Your task to perform on an android device: Open display settings Image 0: 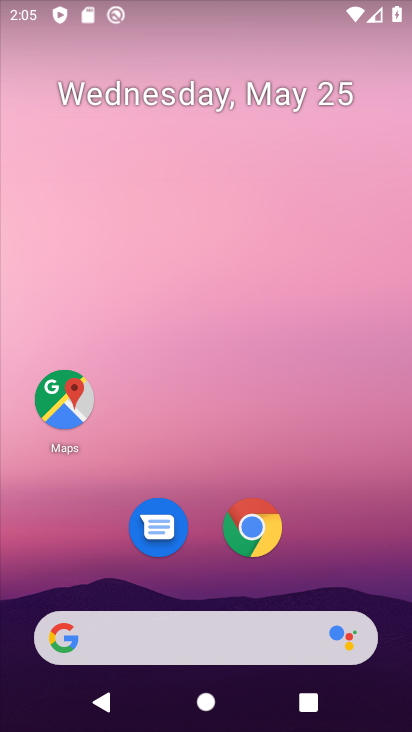
Step 0: drag from (204, 566) to (275, 0)
Your task to perform on an android device: Open display settings Image 1: 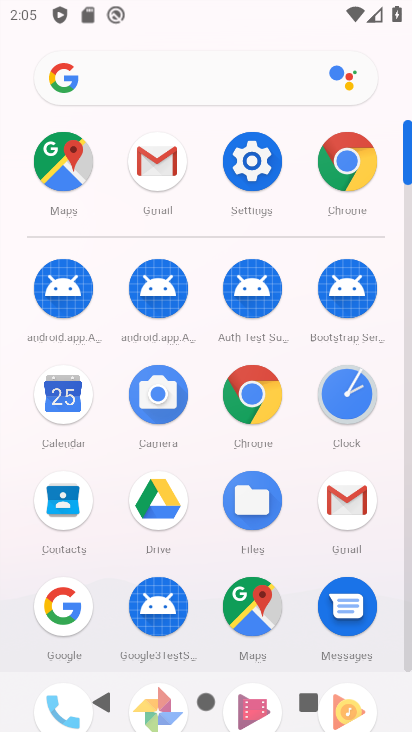
Step 1: click (260, 145)
Your task to perform on an android device: Open display settings Image 2: 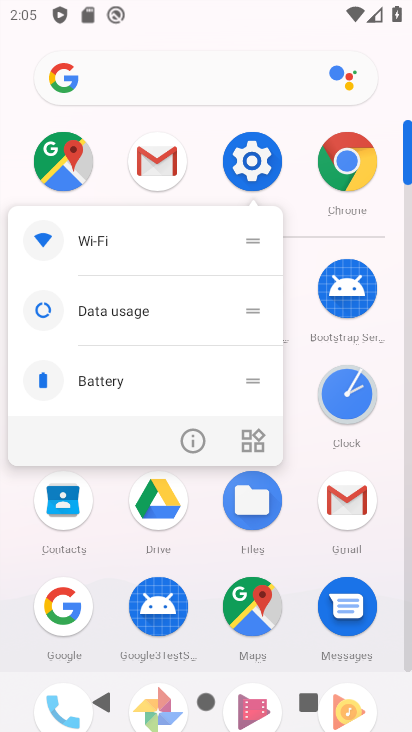
Step 2: click (191, 430)
Your task to perform on an android device: Open display settings Image 3: 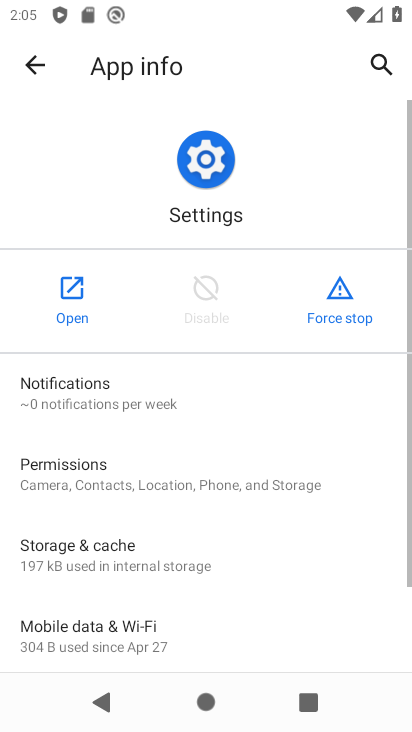
Step 3: click (71, 300)
Your task to perform on an android device: Open display settings Image 4: 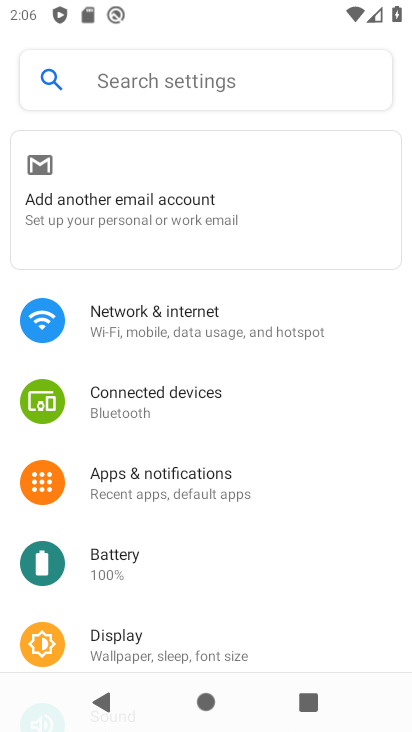
Step 4: drag from (202, 576) to (299, 154)
Your task to perform on an android device: Open display settings Image 5: 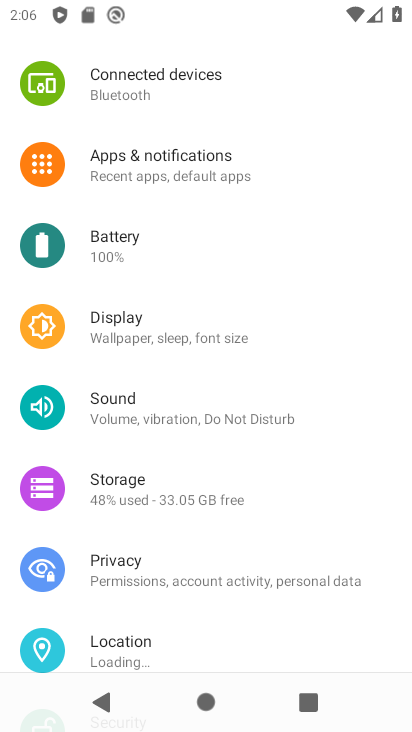
Step 5: click (203, 338)
Your task to perform on an android device: Open display settings Image 6: 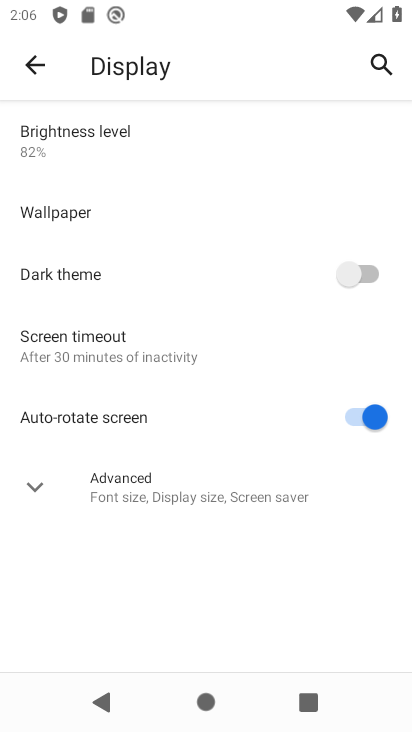
Step 6: task complete